Your task to perform on an android device: Open calendar and show me the third week of next month Image 0: 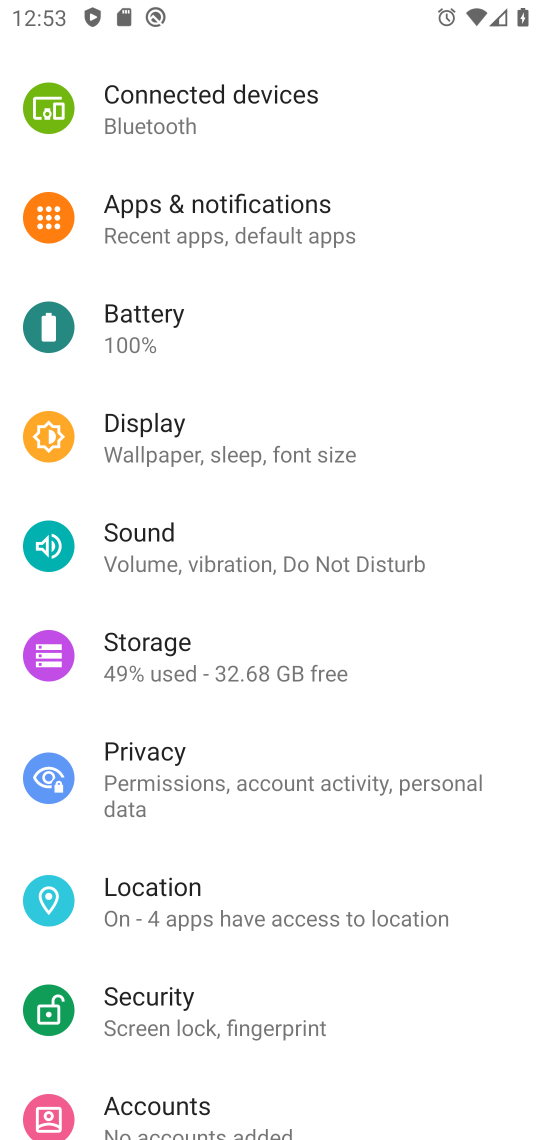
Step 0: drag from (185, 902) to (311, 370)
Your task to perform on an android device: Open calendar and show me the third week of next month Image 1: 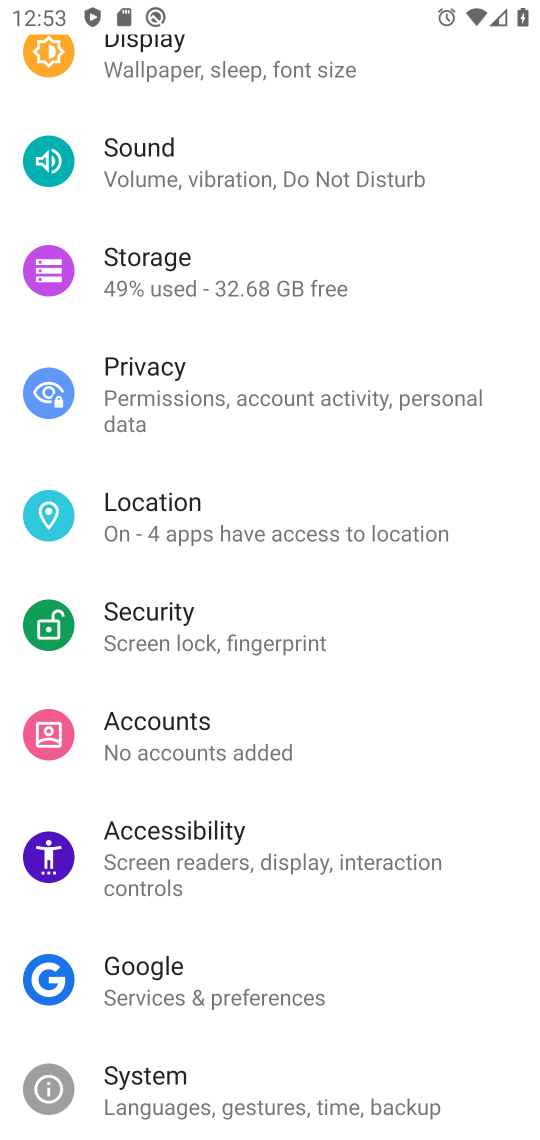
Step 1: press home button
Your task to perform on an android device: Open calendar and show me the third week of next month Image 2: 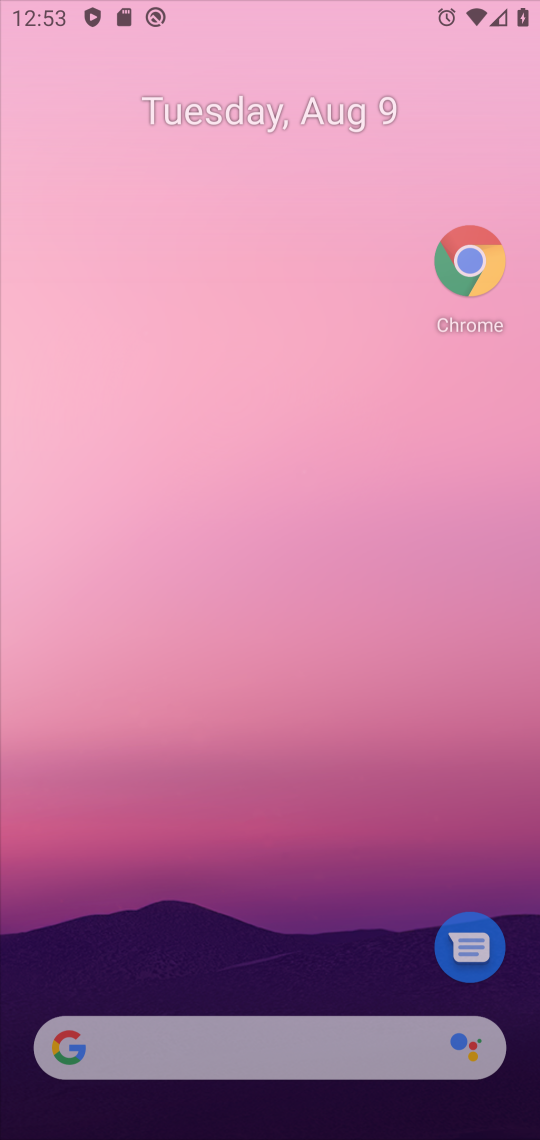
Step 2: drag from (264, 1002) to (309, 125)
Your task to perform on an android device: Open calendar and show me the third week of next month Image 3: 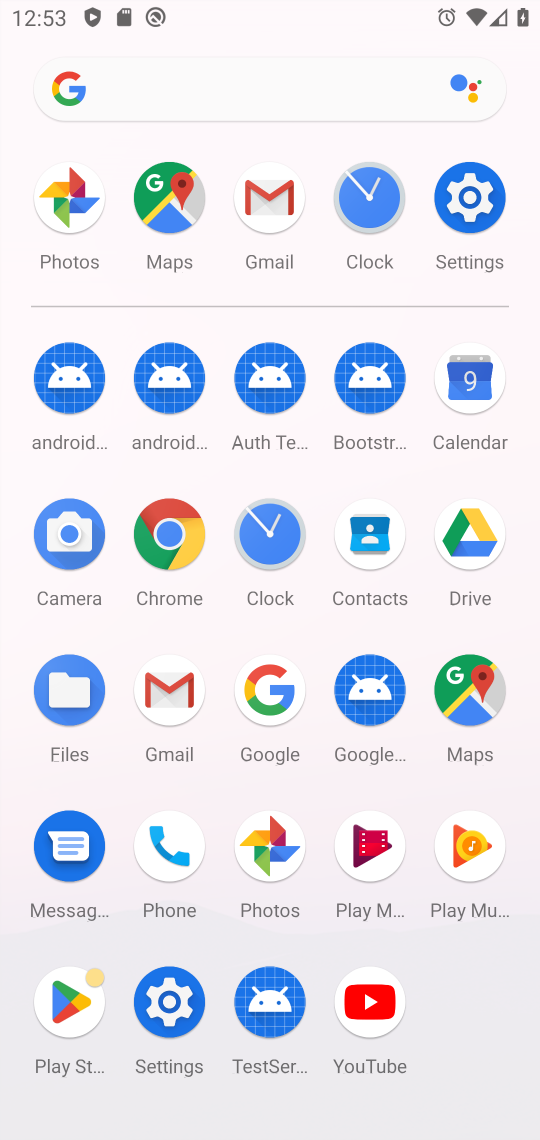
Step 3: drag from (378, 529) to (498, 49)
Your task to perform on an android device: Open calendar and show me the third week of next month Image 4: 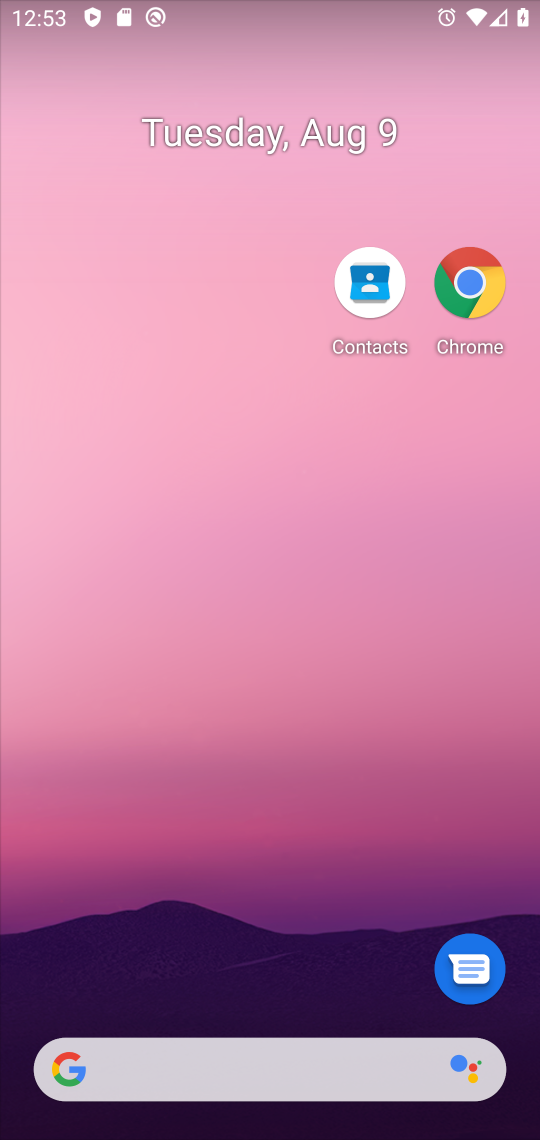
Step 4: drag from (288, 716) to (320, 33)
Your task to perform on an android device: Open calendar and show me the third week of next month Image 5: 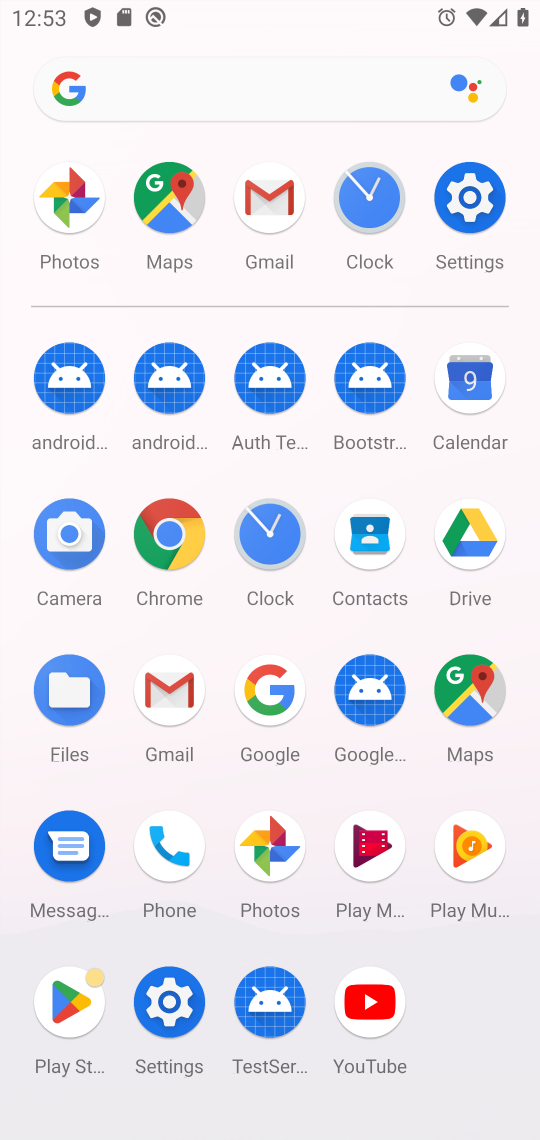
Step 5: drag from (212, 986) to (255, 312)
Your task to perform on an android device: Open calendar and show me the third week of next month Image 6: 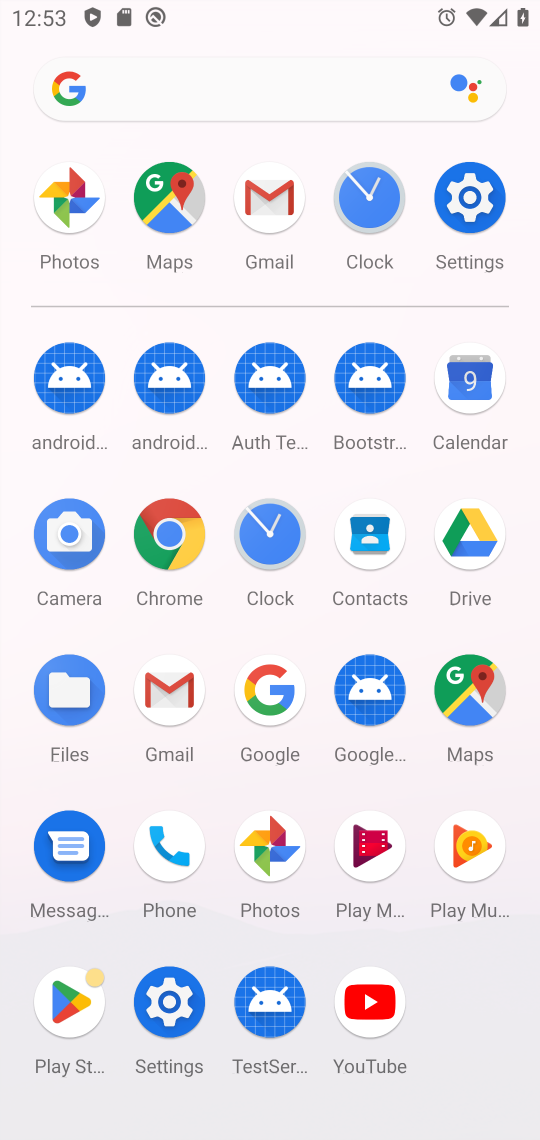
Step 6: click (452, 375)
Your task to perform on an android device: Open calendar and show me the third week of next month Image 7: 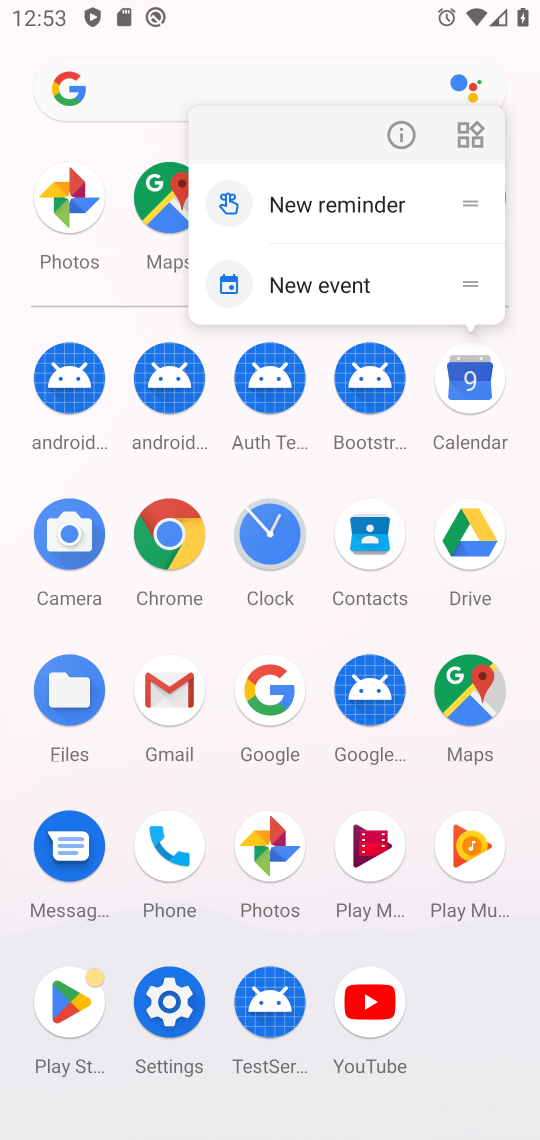
Step 7: click (419, 141)
Your task to perform on an android device: Open calendar and show me the third week of next month Image 8: 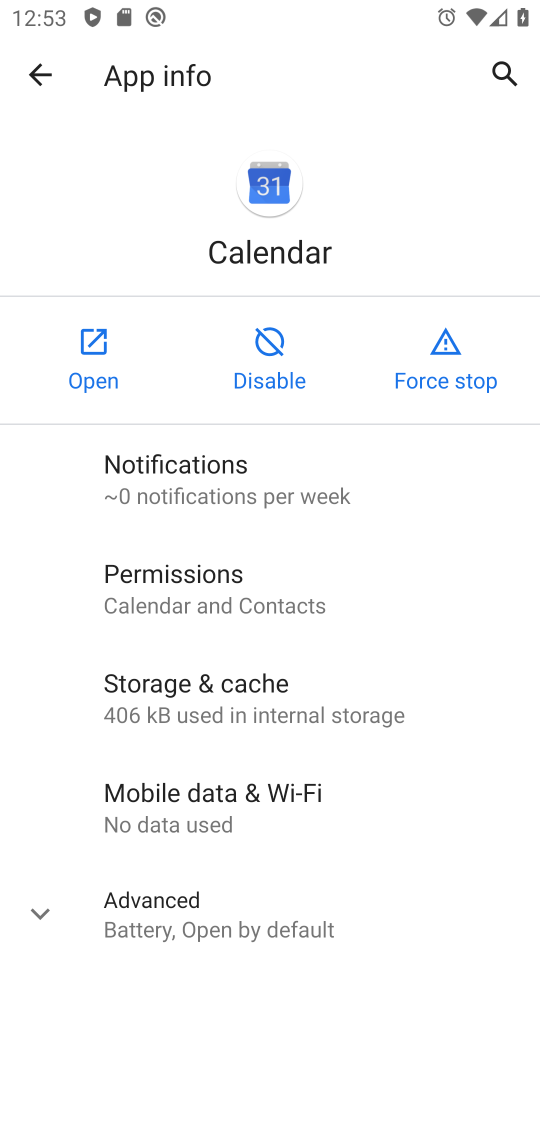
Step 8: click (88, 330)
Your task to perform on an android device: Open calendar and show me the third week of next month Image 9: 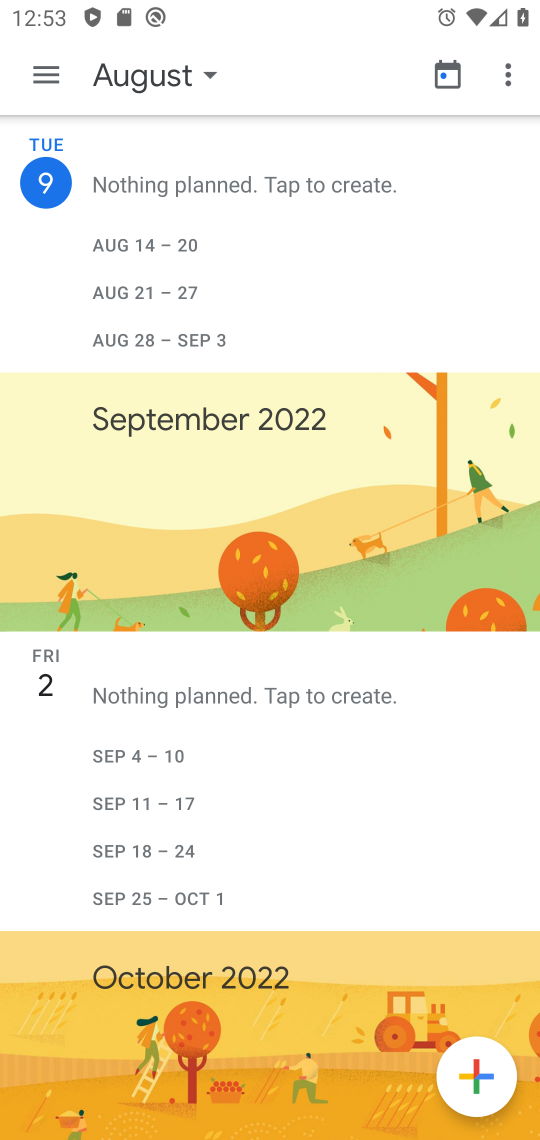
Step 9: click (203, 75)
Your task to perform on an android device: Open calendar and show me the third week of next month Image 10: 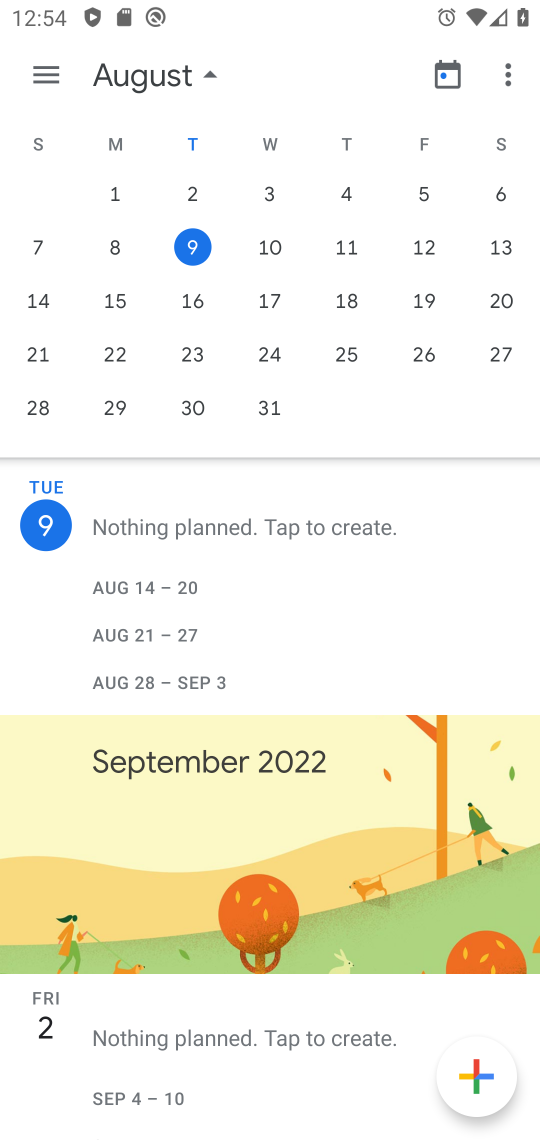
Step 10: drag from (452, 307) to (4, 292)
Your task to perform on an android device: Open calendar and show me the third week of next month Image 11: 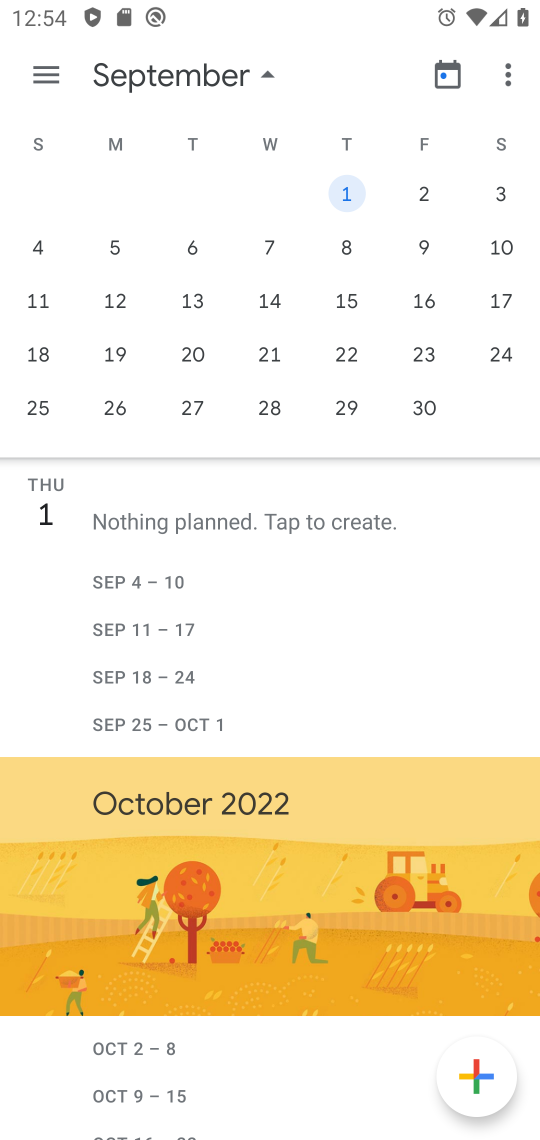
Step 11: click (423, 299)
Your task to perform on an android device: Open calendar and show me the third week of next month Image 12: 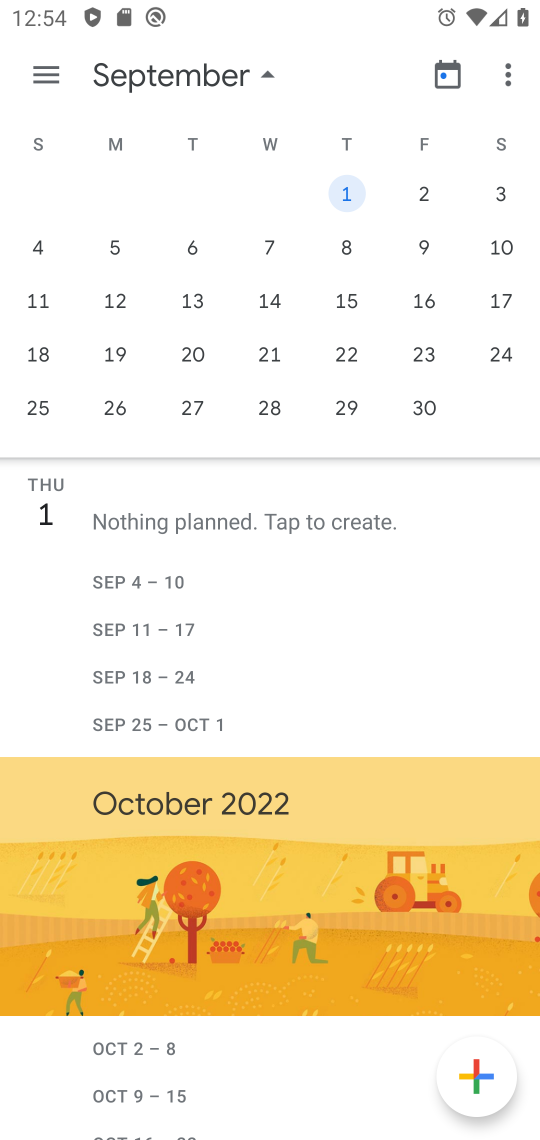
Step 12: click (428, 300)
Your task to perform on an android device: Open calendar and show me the third week of next month Image 13: 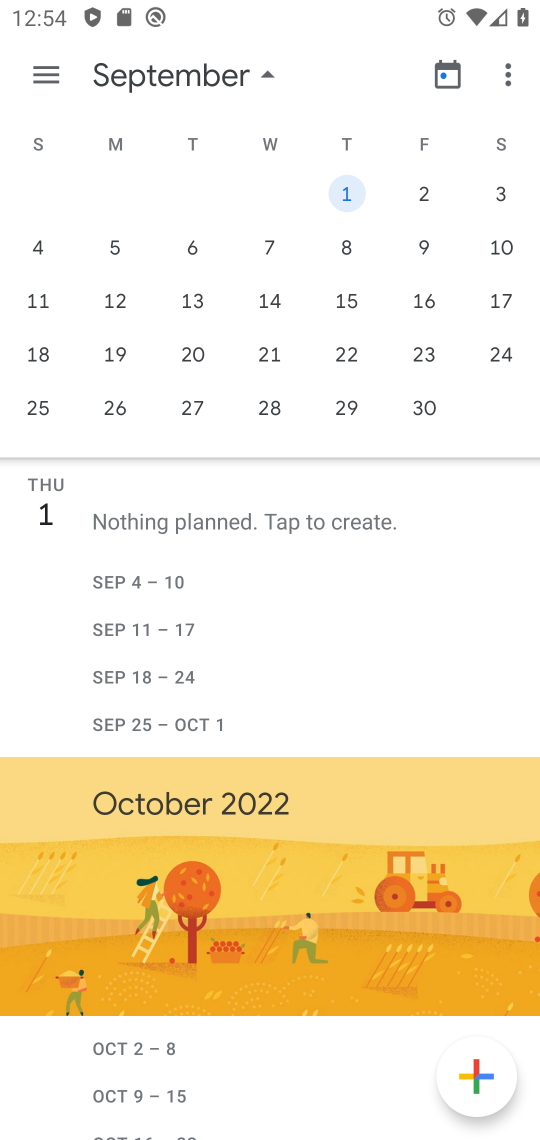
Step 13: click (415, 305)
Your task to perform on an android device: Open calendar and show me the third week of next month Image 14: 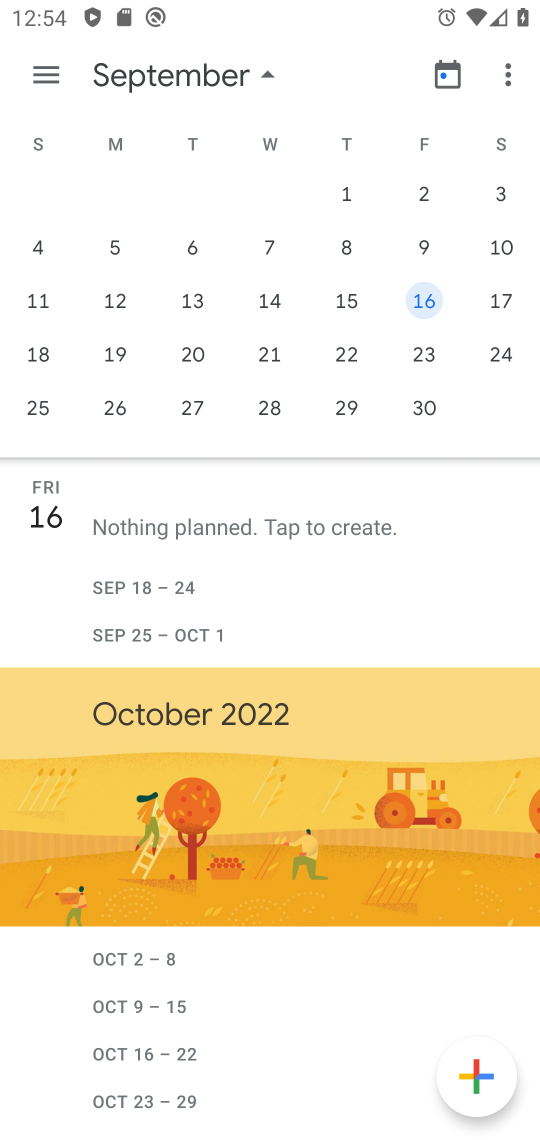
Step 14: click (344, 307)
Your task to perform on an android device: Open calendar and show me the third week of next month Image 15: 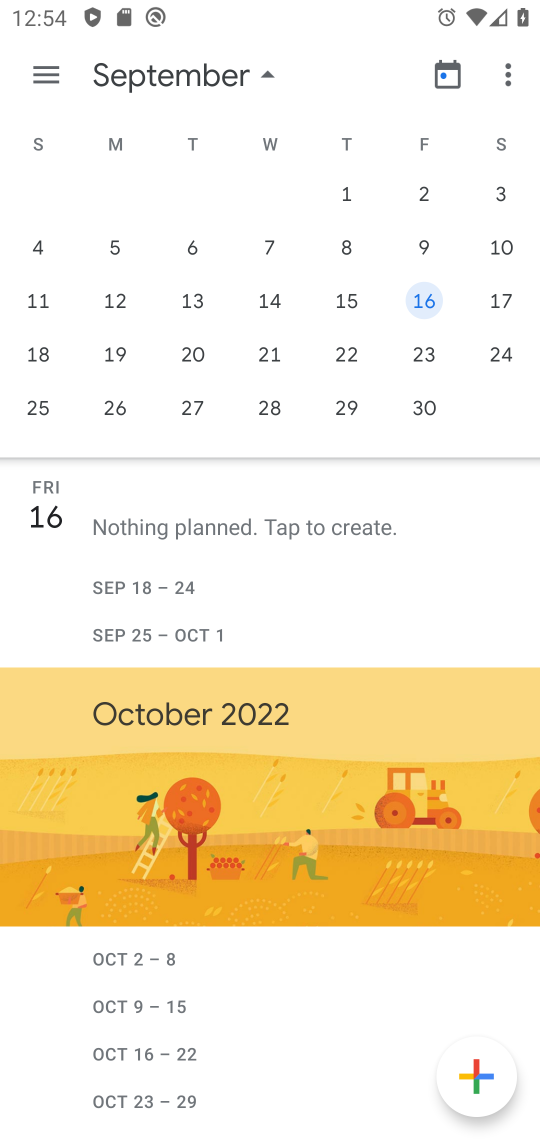
Step 15: click (344, 307)
Your task to perform on an android device: Open calendar and show me the third week of next month Image 16: 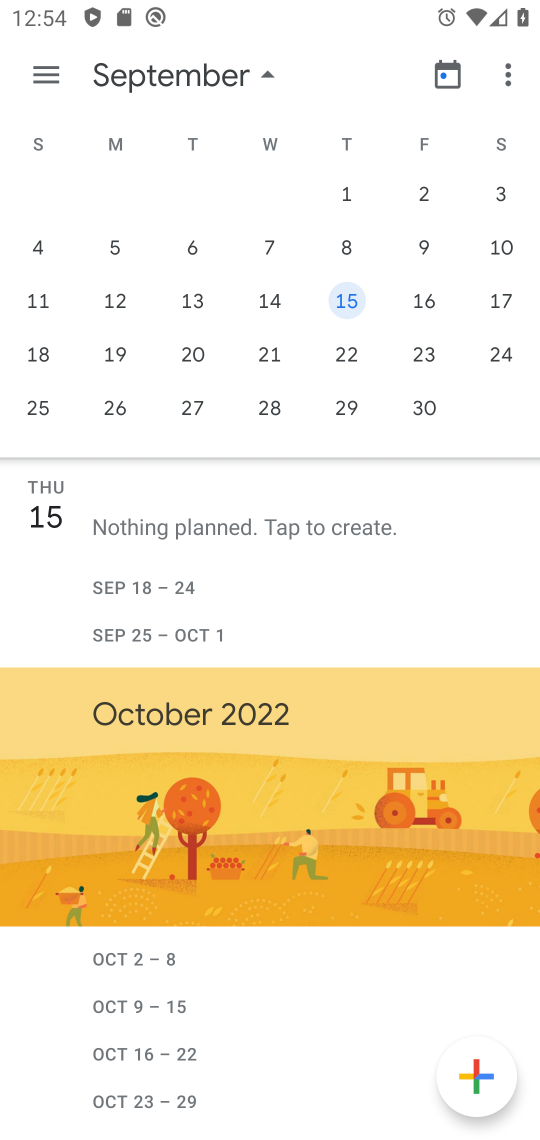
Step 16: click (344, 307)
Your task to perform on an android device: Open calendar and show me the third week of next month Image 17: 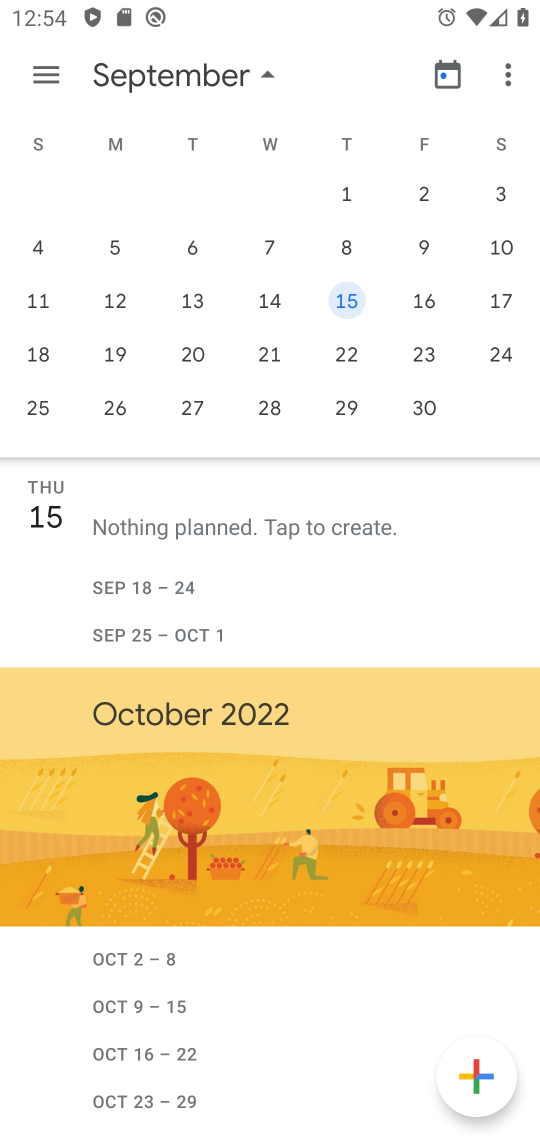
Step 17: task complete